Your task to perform on an android device: Check the weather Image 0: 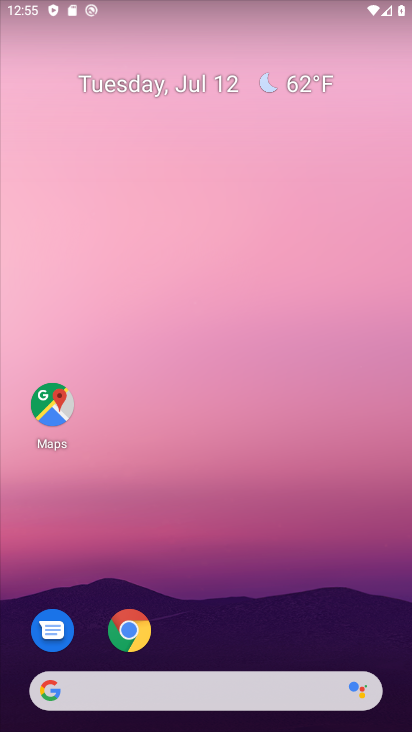
Step 0: drag from (250, 364) to (257, 82)
Your task to perform on an android device: Check the weather Image 1: 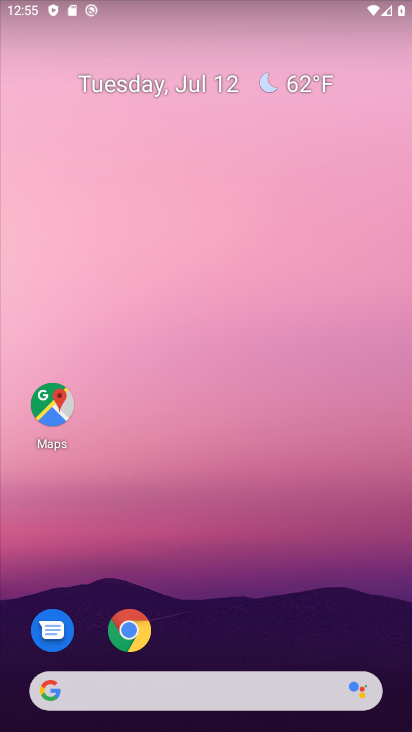
Step 1: drag from (249, 642) to (265, 45)
Your task to perform on an android device: Check the weather Image 2: 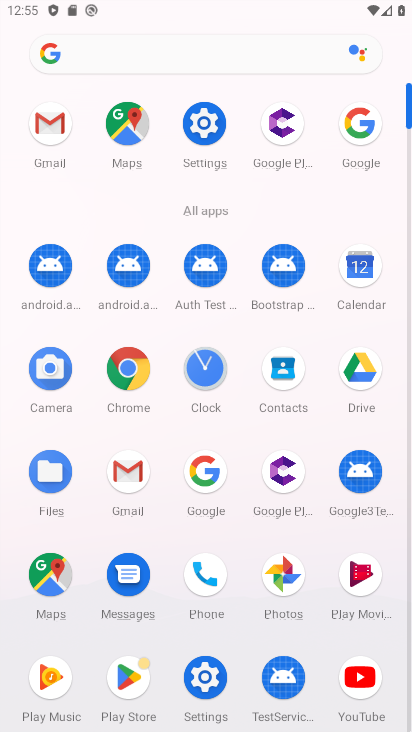
Step 2: click (365, 125)
Your task to perform on an android device: Check the weather Image 3: 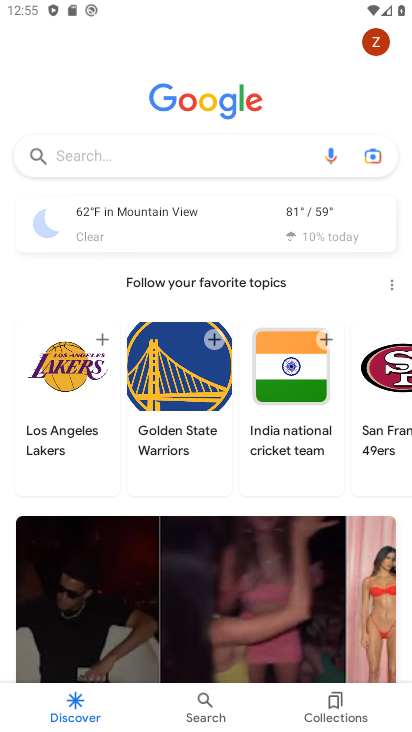
Step 3: click (170, 153)
Your task to perform on an android device: Check the weather Image 4: 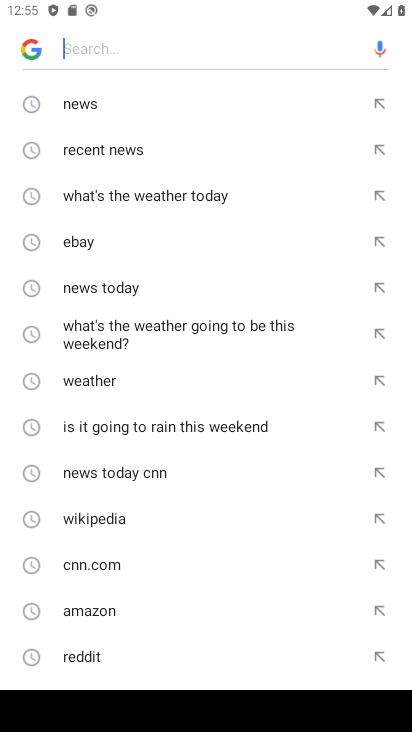
Step 4: type "weather"
Your task to perform on an android device: Check the weather Image 5: 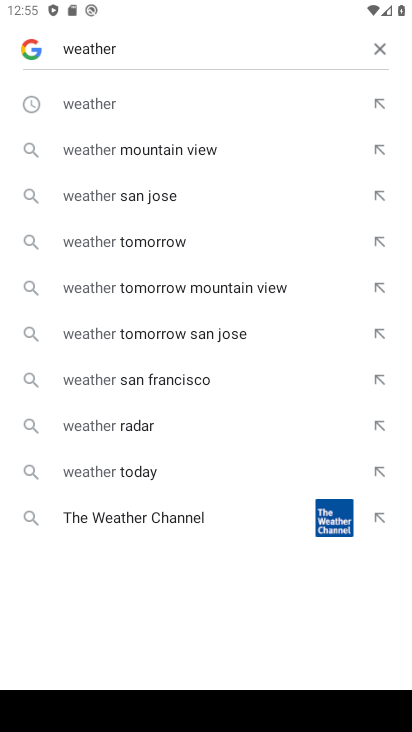
Step 5: click (112, 106)
Your task to perform on an android device: Check the weather Image 6: 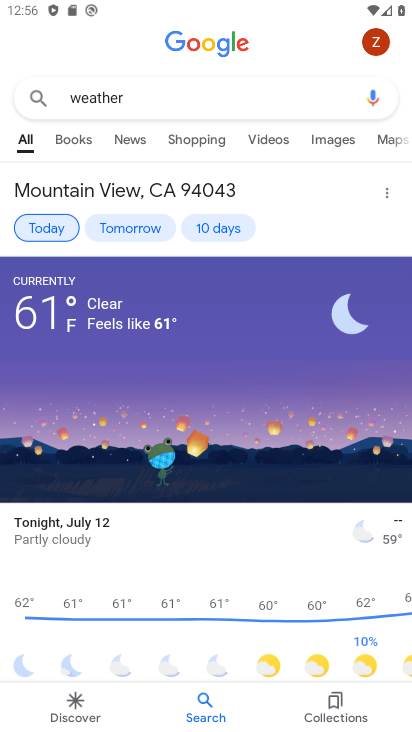
Step 6: task complete